Your task to perform on an android device: turn on notifications settings in the gmail app Image 0: 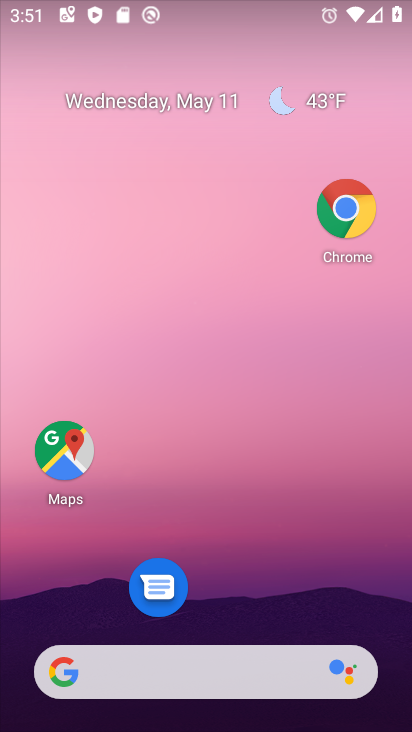
Step 0: drag from (300, 565) to (278, 147)
Your task to perform on an android device: turn on notifications settings in the gmail app Image 1: 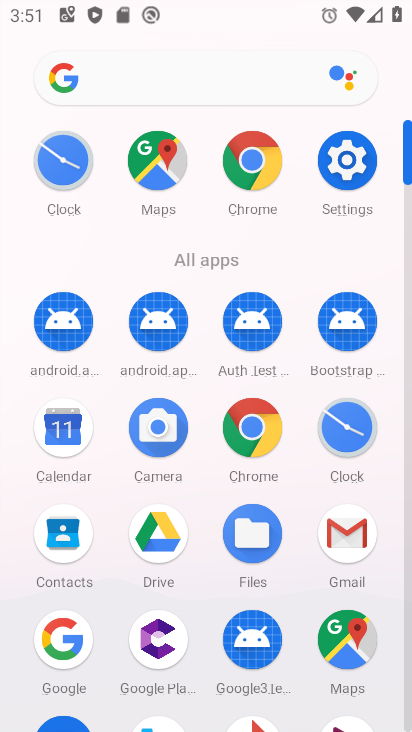
Step 1: drag from (225, 683) to (227, 386)
Your task to perform on an android device: turn on notifications settings in the gmail app Image 2: 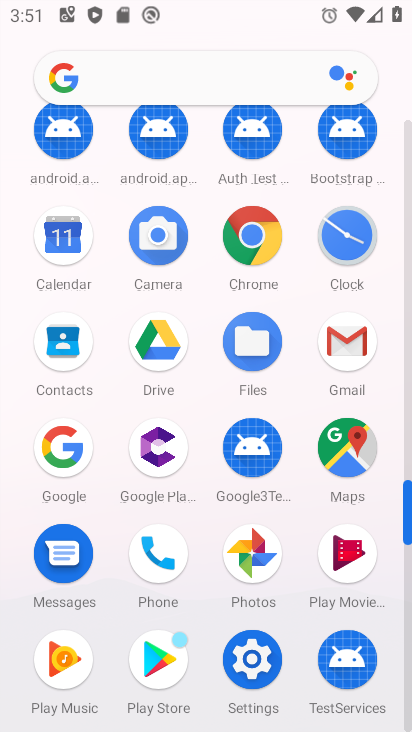
Step 2: click (358, 352)
Your task to perform on an android device: turn on notifications settings in the gmail app Image 3: 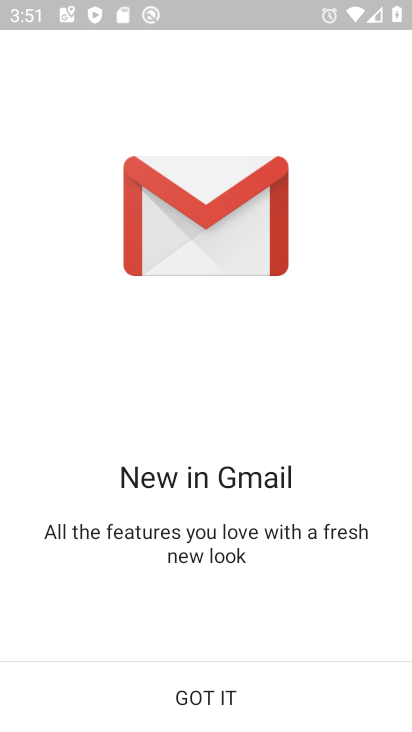
Step 3: task complete